Your task to perform on an android device: turn on javascript in the chrome app Image 0: 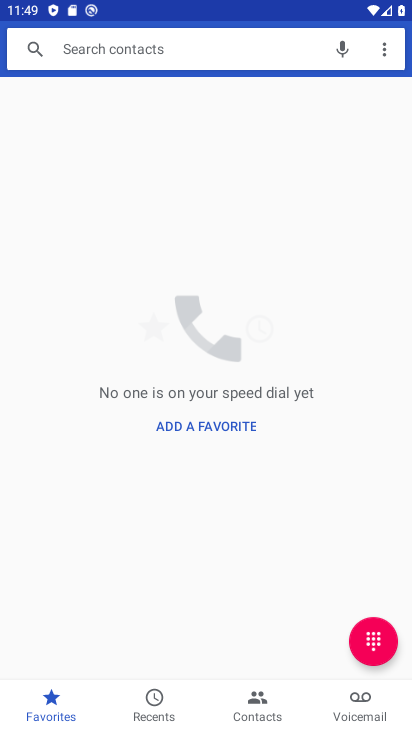
Step 0: press back button
Your task to perform on an android device: turn on javascript in the chrome app Image 1: 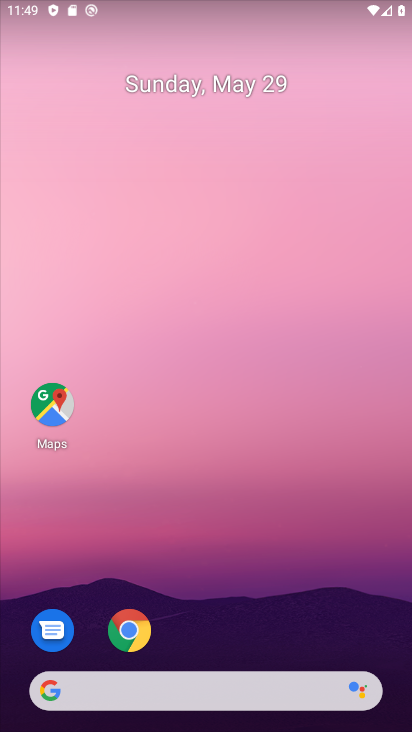
Step 1: drag from (235, 676) to (206, 118)
Your task to perform on an android device: turn on javascript in the chrome app Image 2: 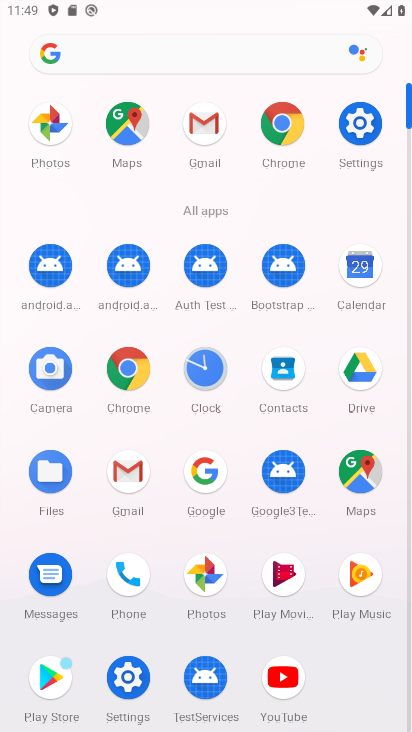
Step 2: click (278, 130)
Your task to perform on an android device: turn on javascript in the chrome app Image 3: 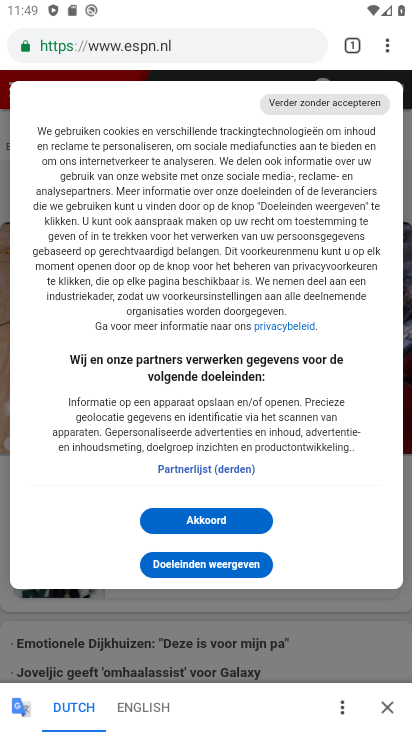
Step 3: drag from (389, 41) to (211, 551)
Your task to perform on an android device: turn on javascript in the chrome app Image 4: 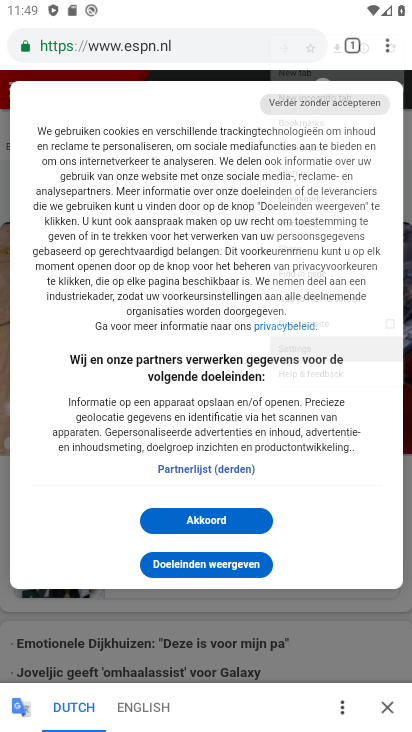
Step 4: click (212, 544)
Your task to perform on an android device: turn on javascript in the chrome app Image 5: 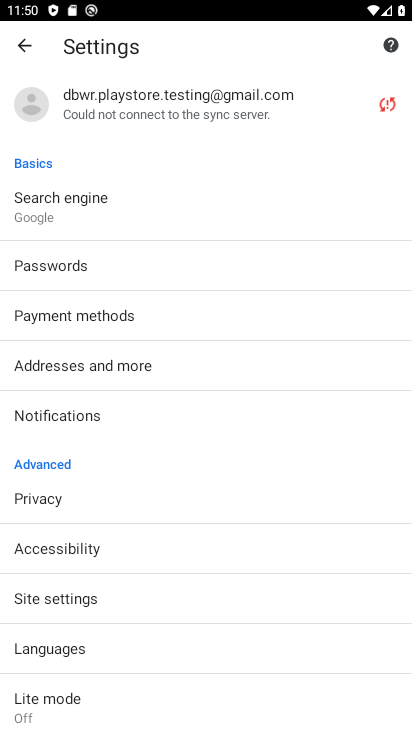
Step 5: click (45, 599)
Your task to perform on an android device: turn on javascript in the chrome app Image 6: 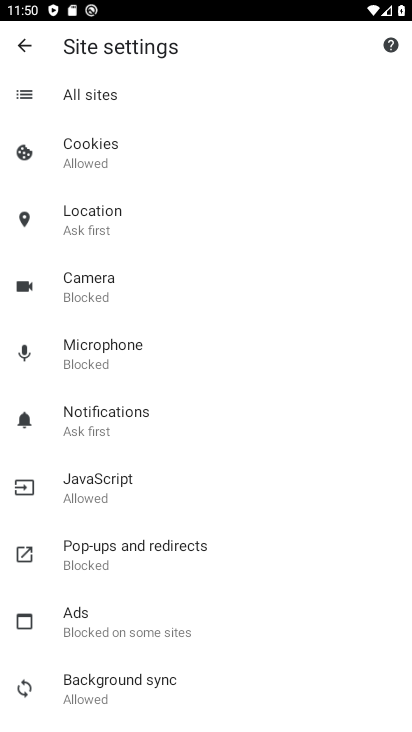
Step 6: click (90, 488)
Your task to perform on an android device: turn on javascript in the chrome app Image 7: 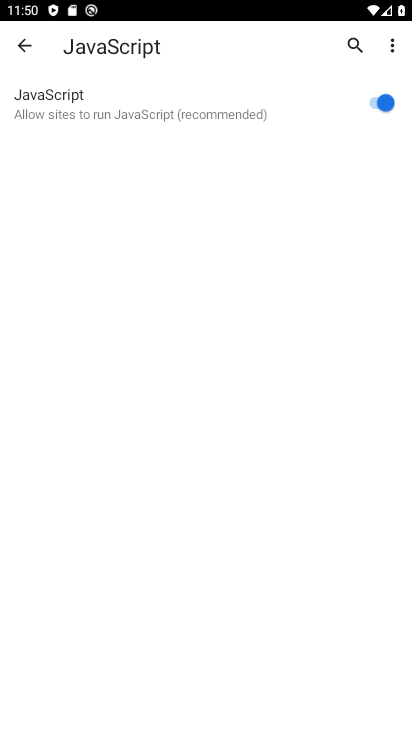
Step 7: task complete